Your task to perform on an android device: Open wifi settings Image 0: 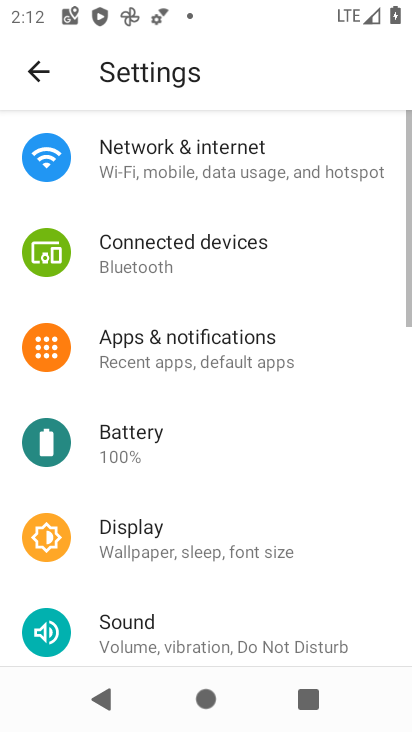
Step 0: click (211, 170)
Your task to perform on an android device: Open wifi settings Image 1: 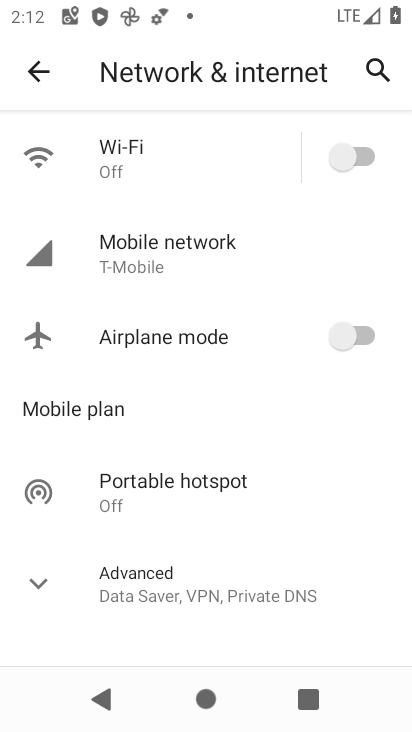
Step 1: click (163, 153)
Your task to perform on an android device: Open wifi settings Image 2: 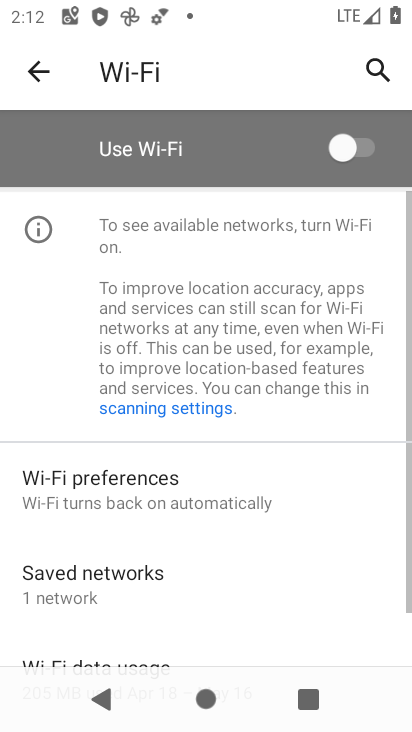
Step 2: task complete